Your task to perform on an android device: delete a single message in the gmail app Image 0: 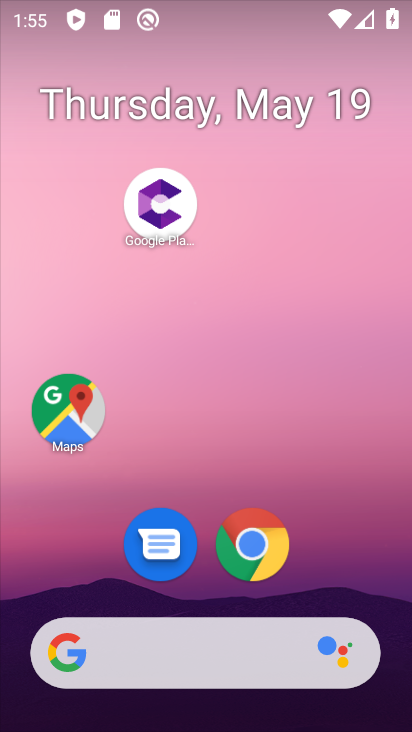
Step 0: press home button
Your task to perform on an android device: delete a single message in the gmail app Image 1: 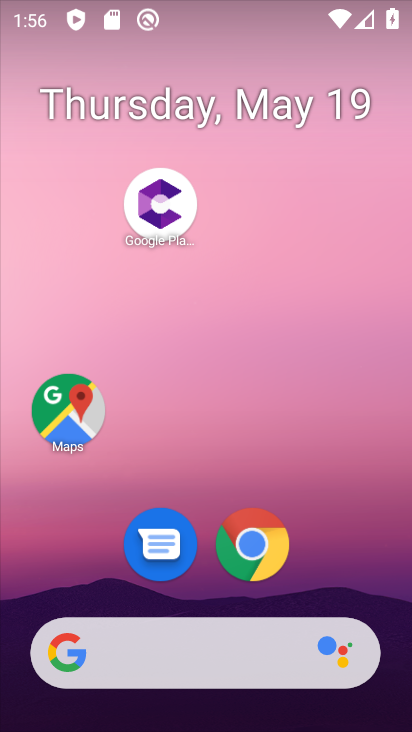
Step 1: drag from (304, 699) to (315, 185)
Your task to perform on an android device: delete a single message in the gmail app Image 2: 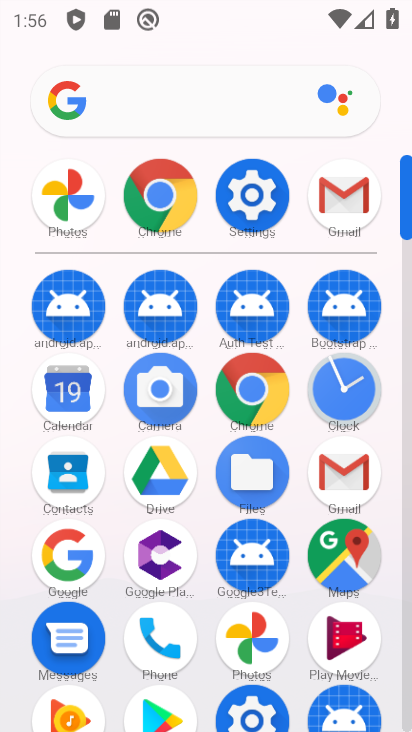
Step 2: click (331, 197)
Your task to perform on an android device: delete a single message in the gmail app Image 3: 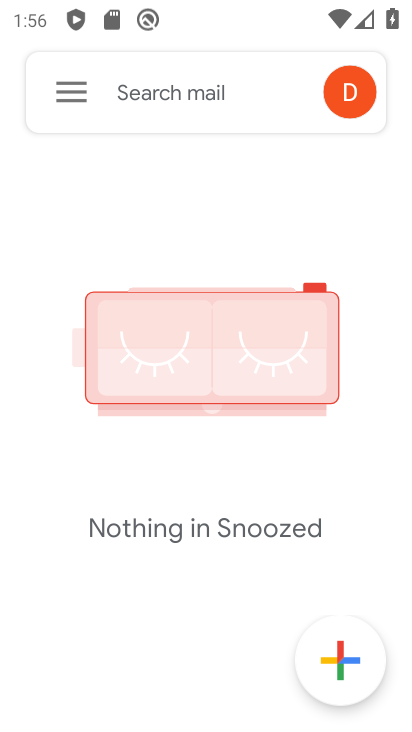
Step 3: task complete